Your task to perform on an android device: Open calendar and show me the first week of next month Image 0: 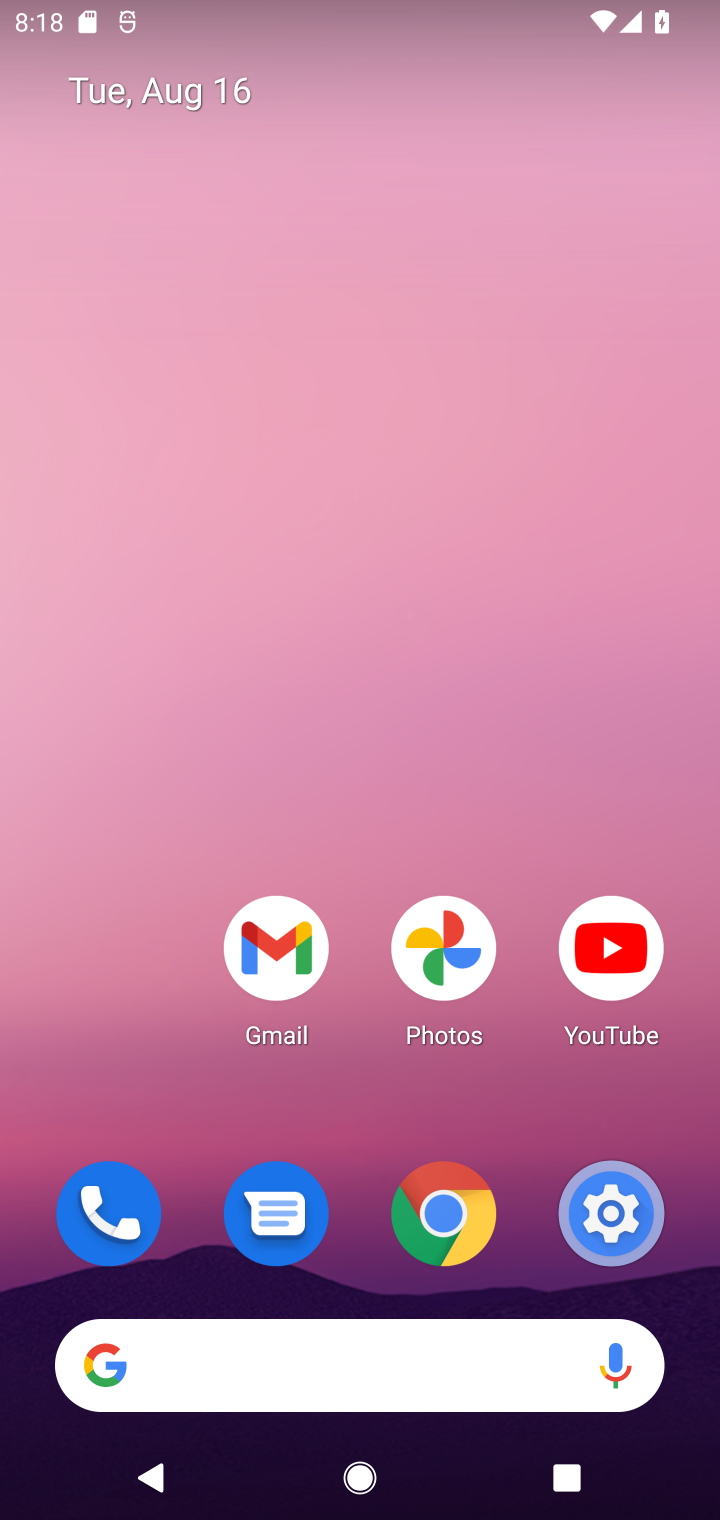
Step 0: drag from (324, 938) to (371, 26)
Your task to perform on an android device: Open calendar and show me the first week of next month Image 1: 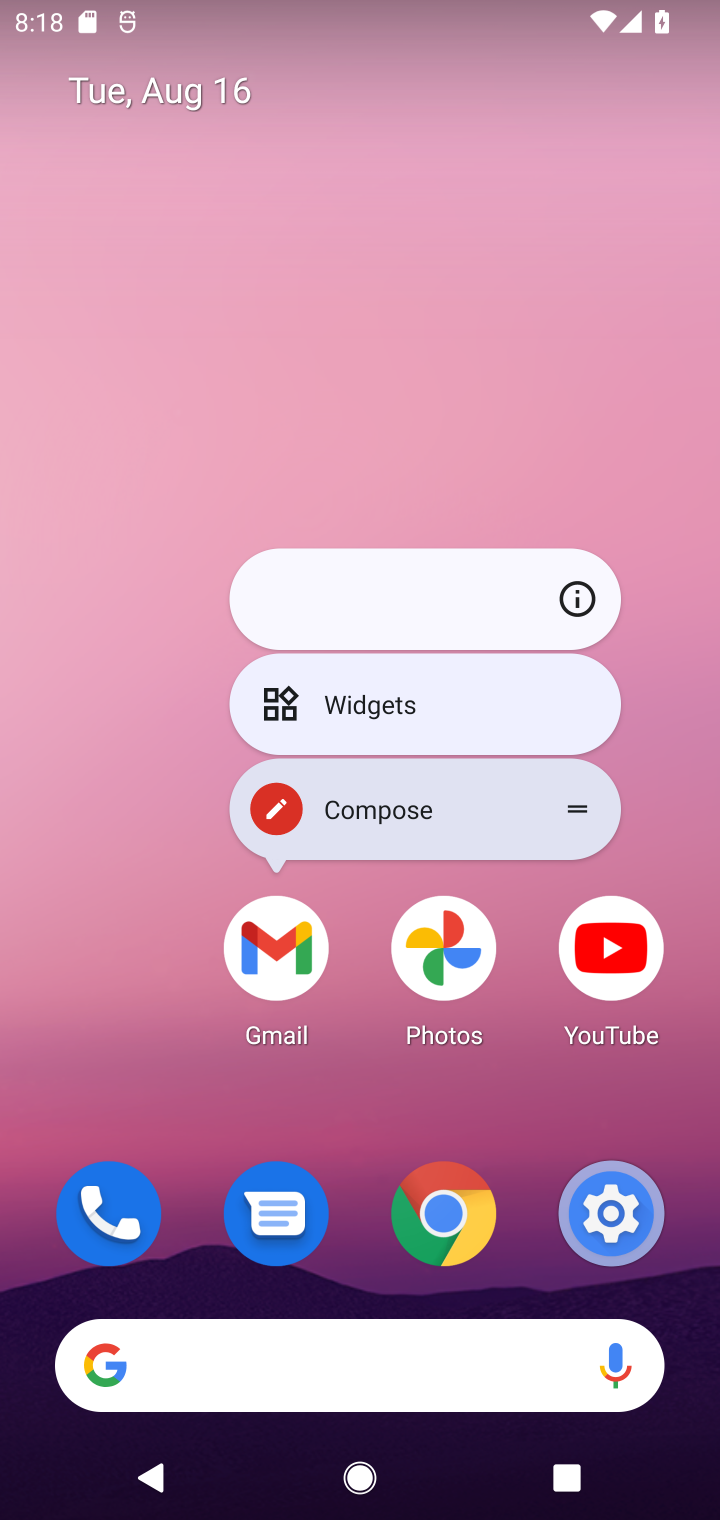
Step 1: click (209, 381)
Your task to perform on an android device: Open calendar and show me the first week of next month Image 2: 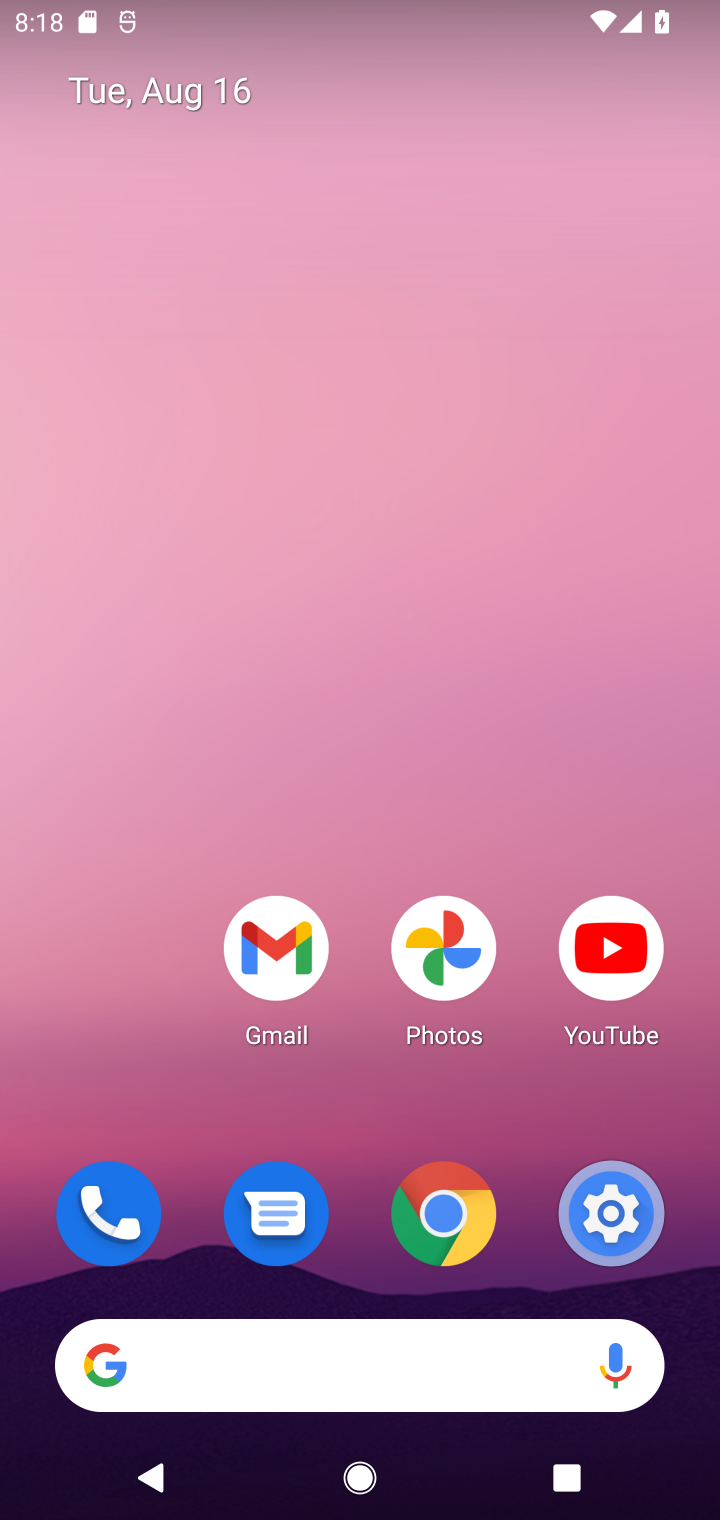
Step 2: drag from (346, 615) to (379, 363)
Your task to perform on an android device: Open calendar and show me the first week of next month Image 3: 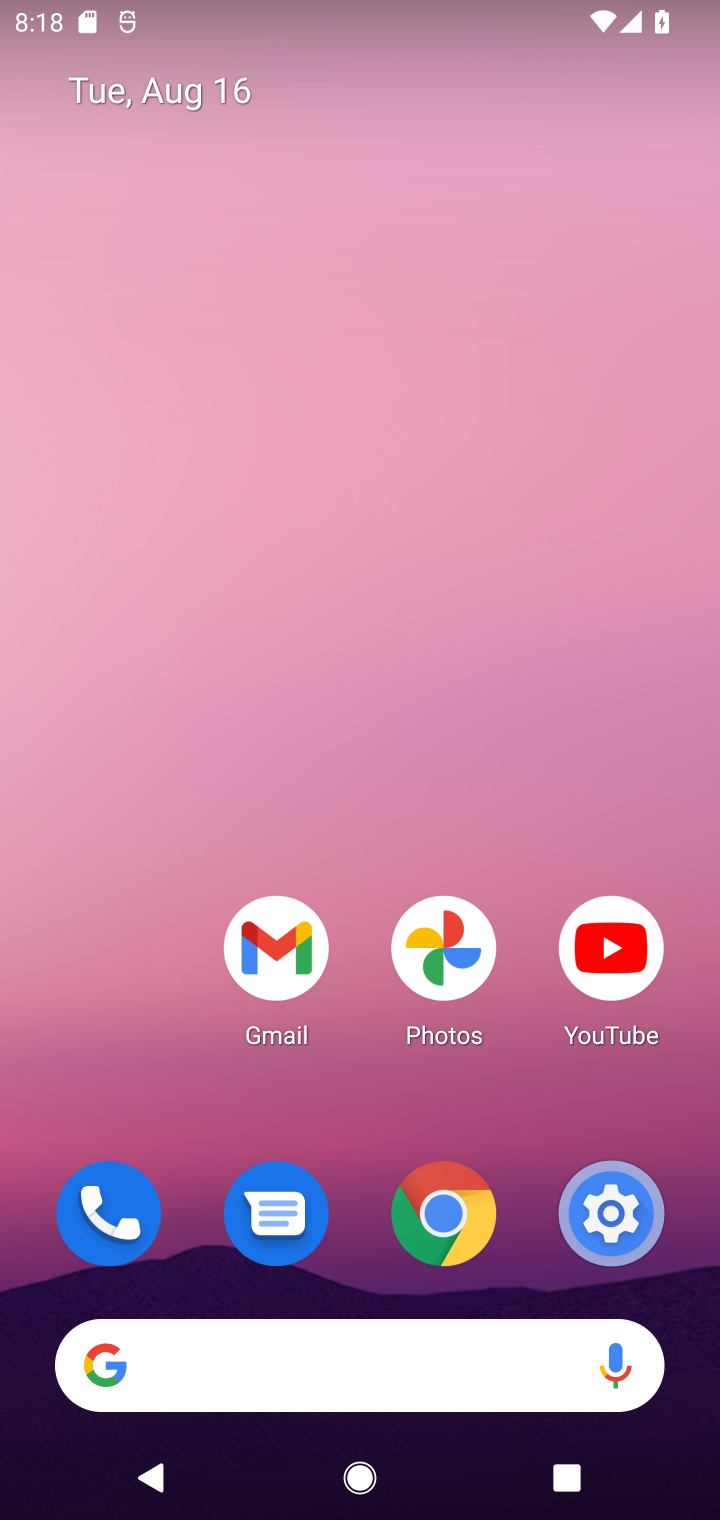
Step 3: drag from (461, 669) to (473, 158)
Your task to perform on an android device: Open calendar and show me the first week of next month Image 4: 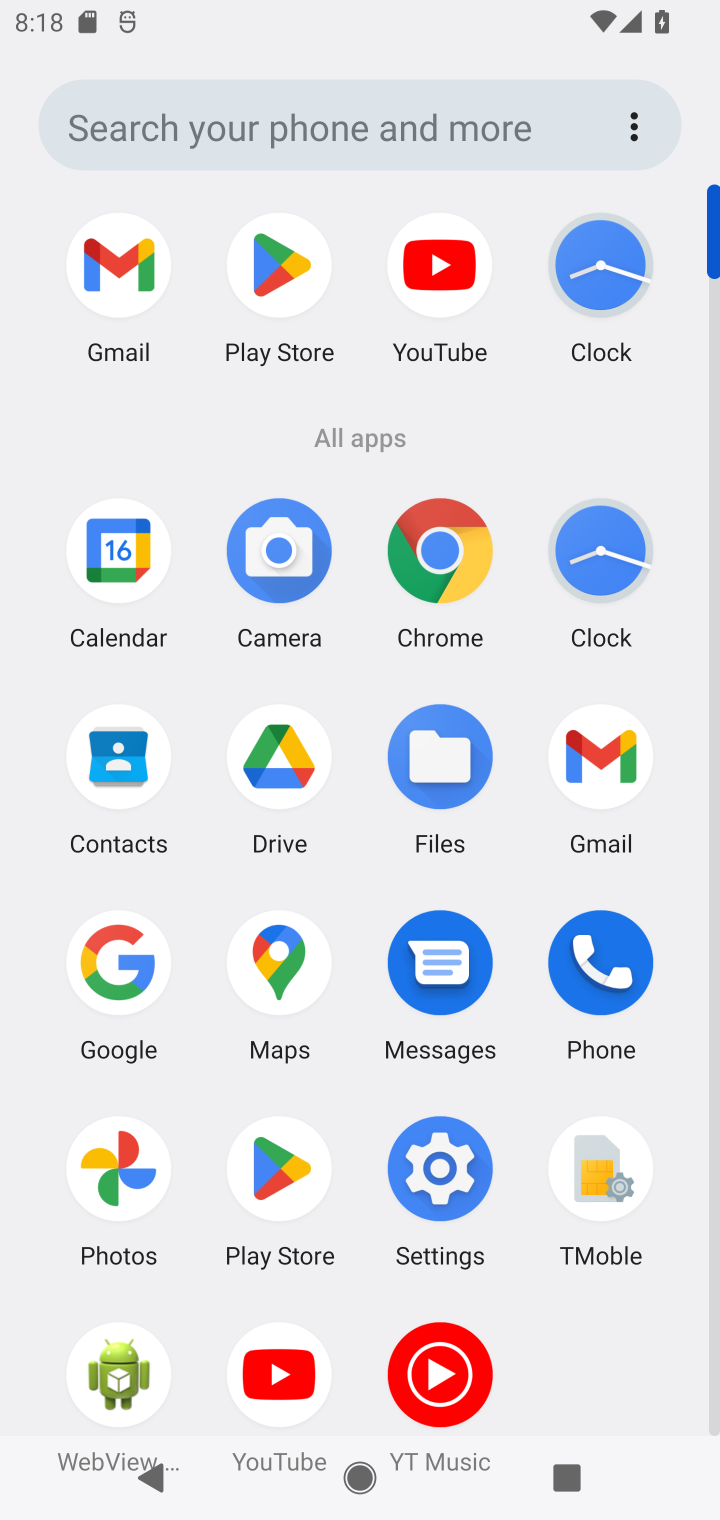
Step 4: click (77, 538)
Your task to perform on an android device: Open calendar and show me the first week of next month Image 5: 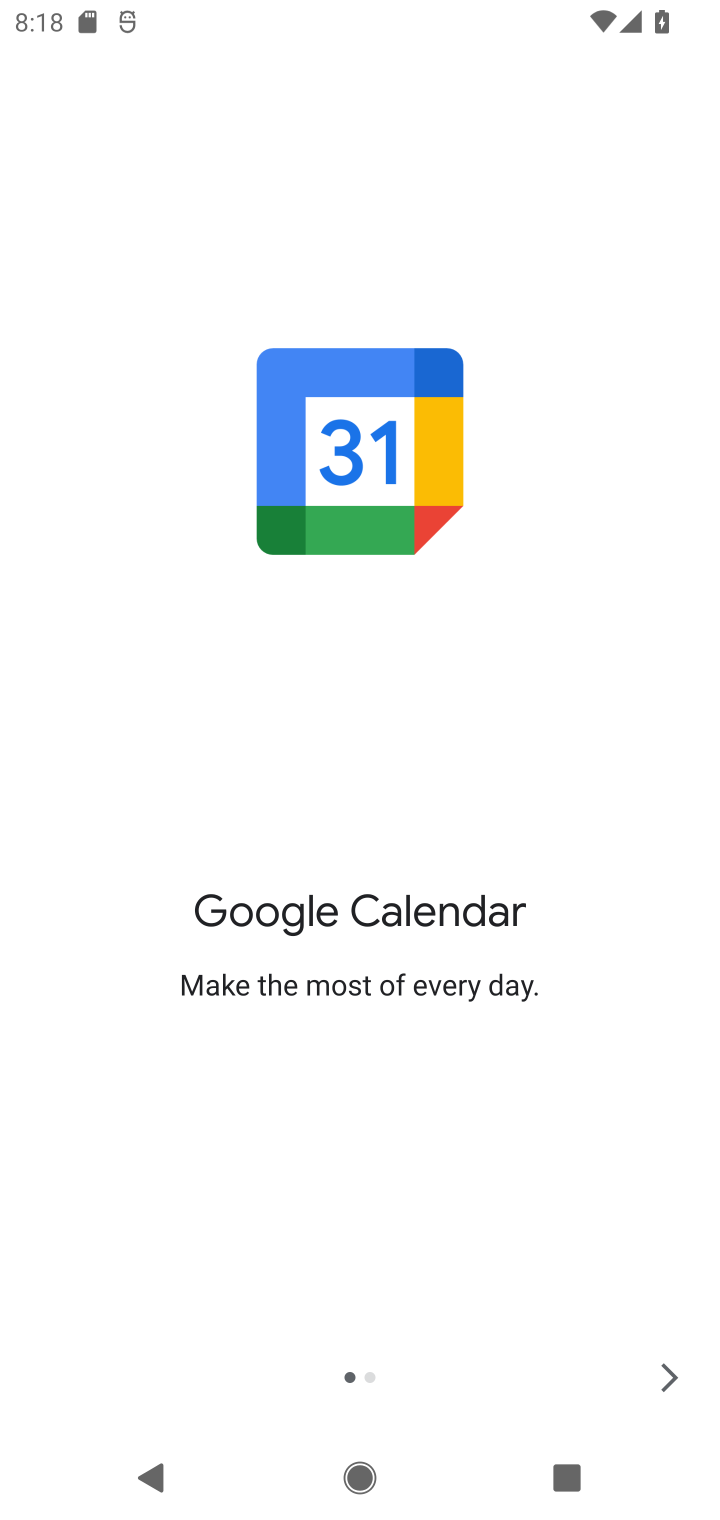
Step 5: click (675, 1351)
Your task to perform on an android device: Open calendar and show me the first week of next month Image 6: 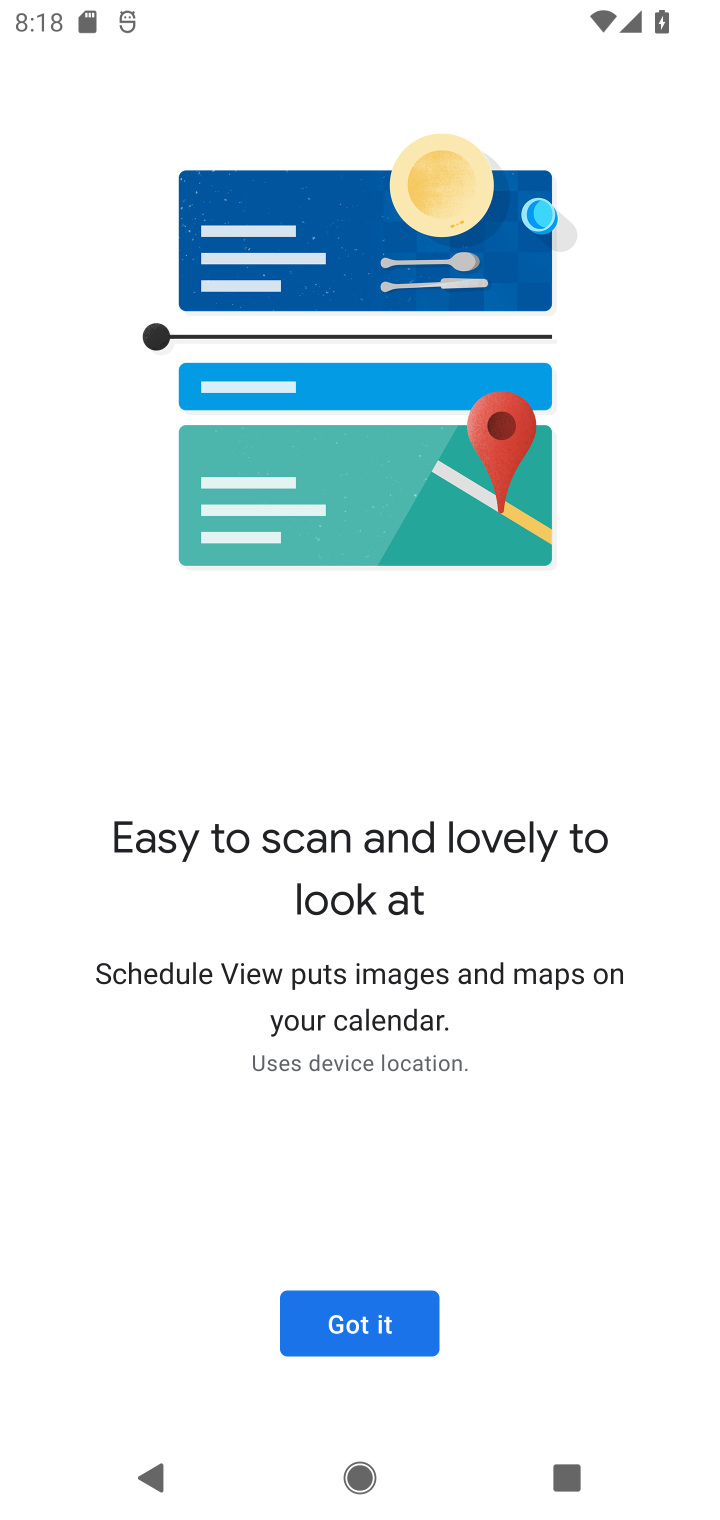
Step 6: click (357, 1312)
Your task to perform on an android device: Open calendar and show me the first week of next month Image 7: 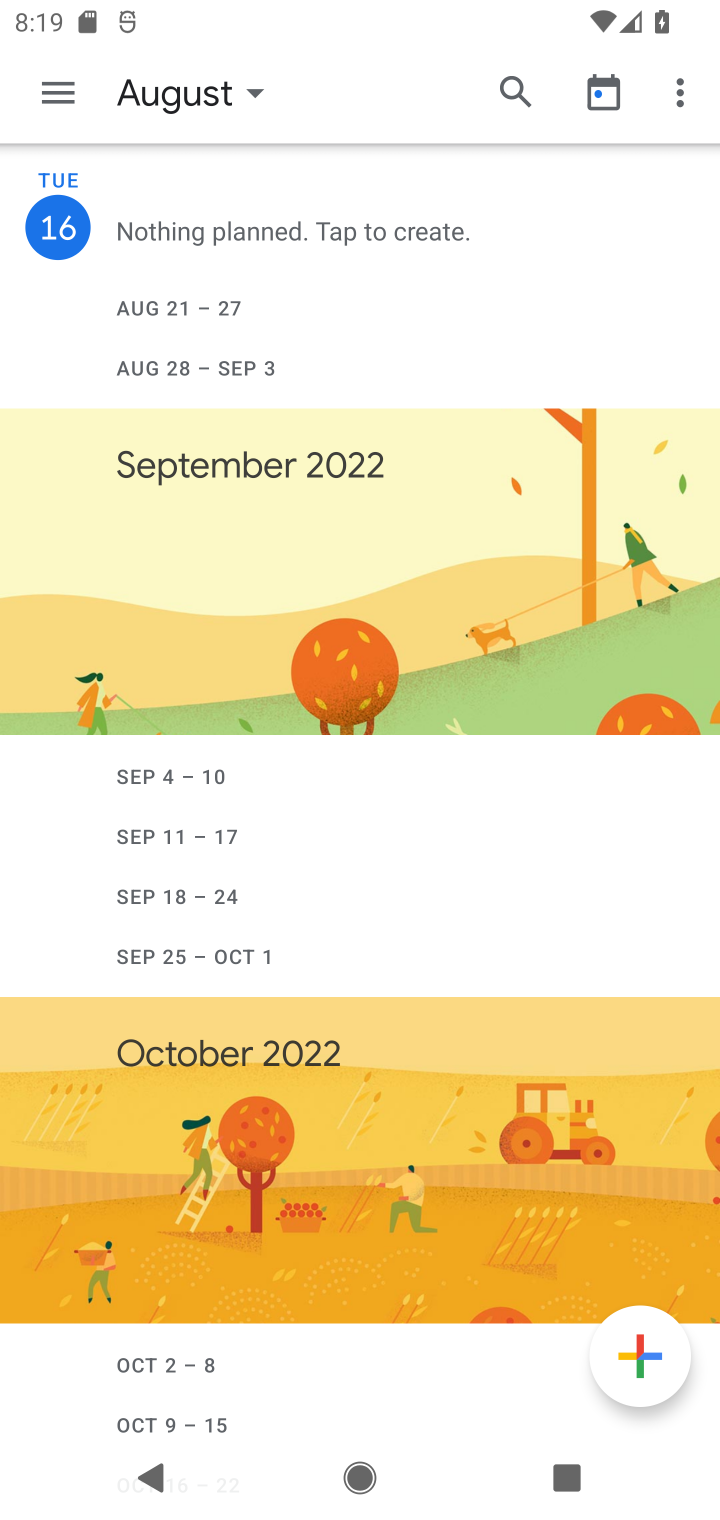
Step 7: click (76, 81)
Your task to perform on an android device: Open calendar and show me the first week of next month Image 8: 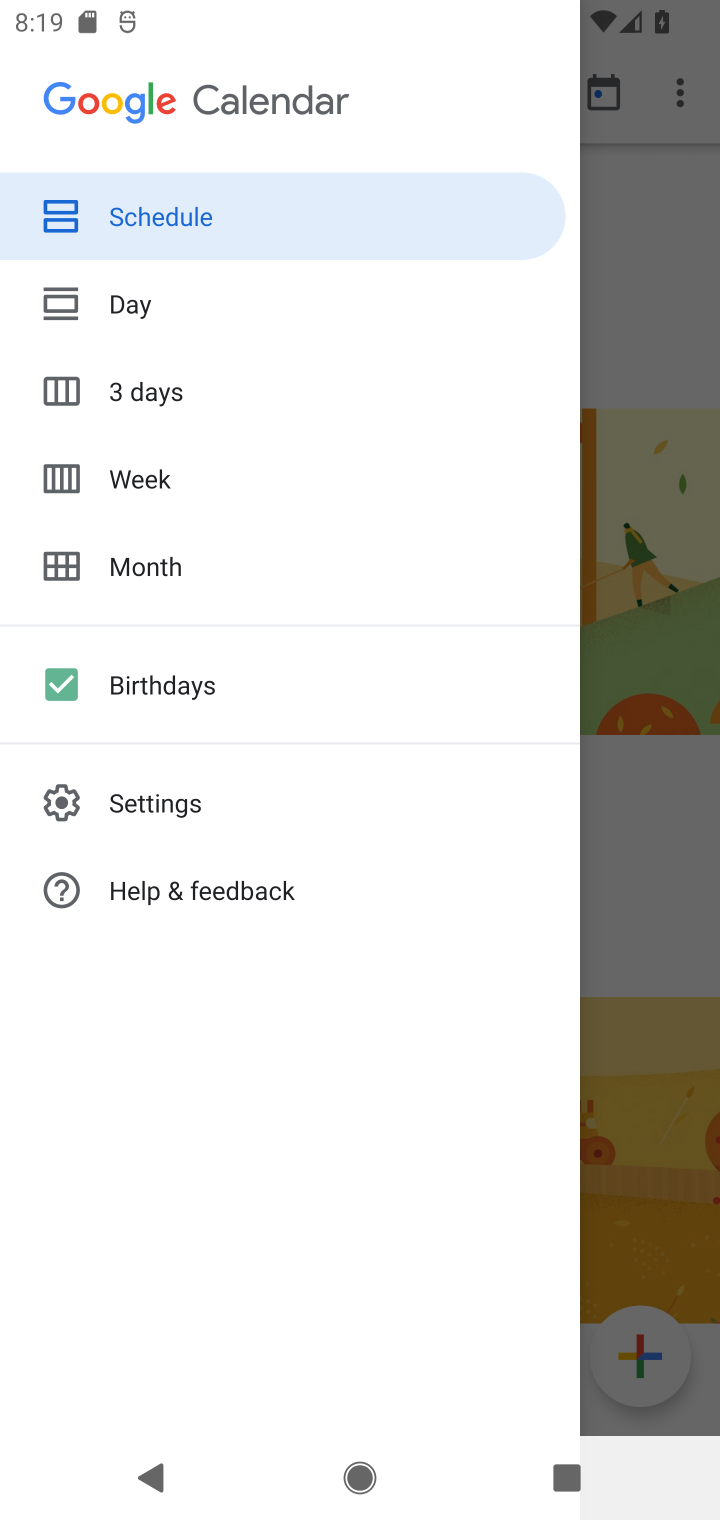
Step 8: click (200, 472)
Your task to perform on an android device: Open calendar and show me the first week of next month Image 9: 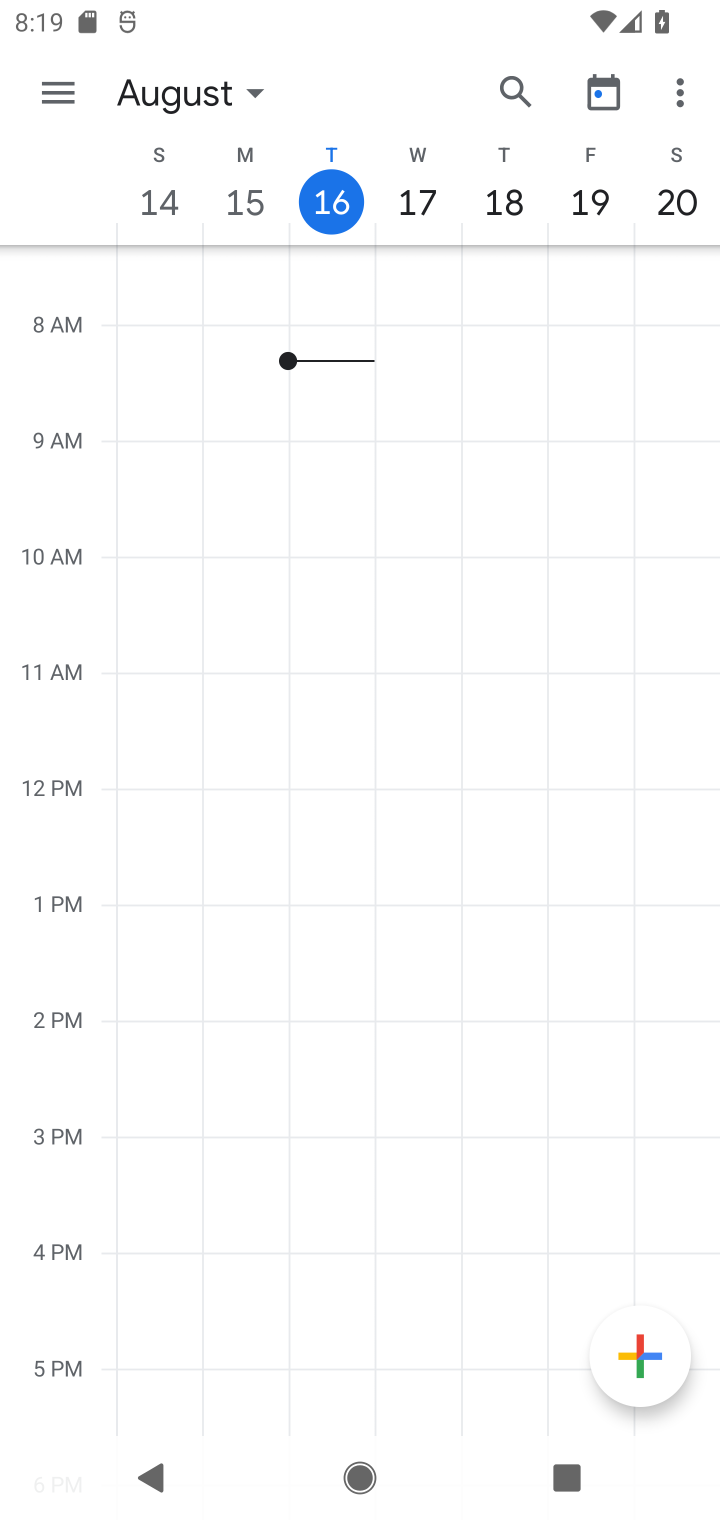
Step 9: task complete